Your task to perform on an android device: Go to internet settings Image 0: 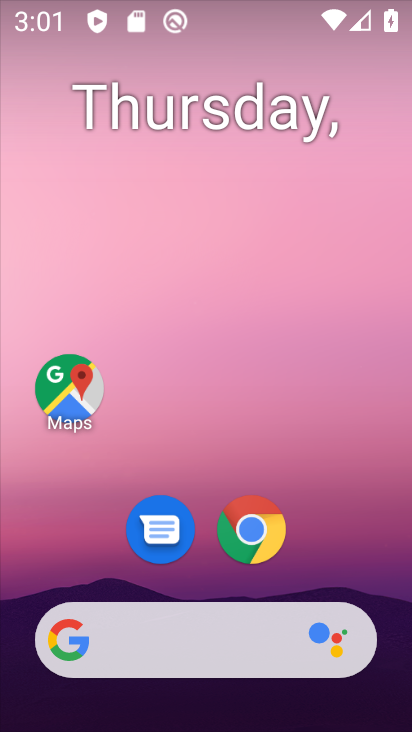
Step 0: drag from (320, 543) to (289, 58)
Your task to perform on an android device: Go to internet settings Image 1: 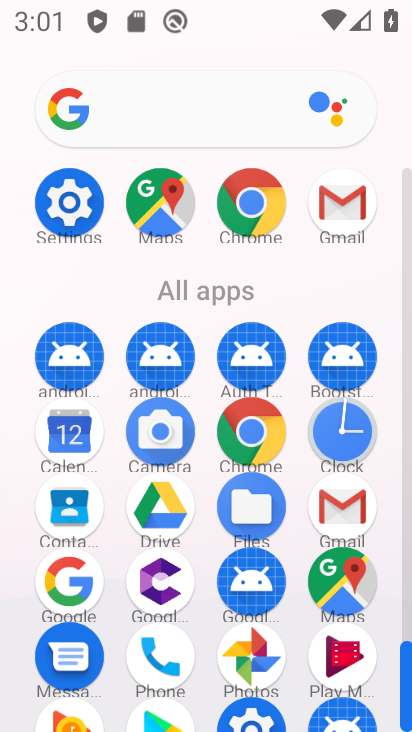
Step 1: click (67, 202)
Your task to perform on an android device: Go to internet settings Image 2: 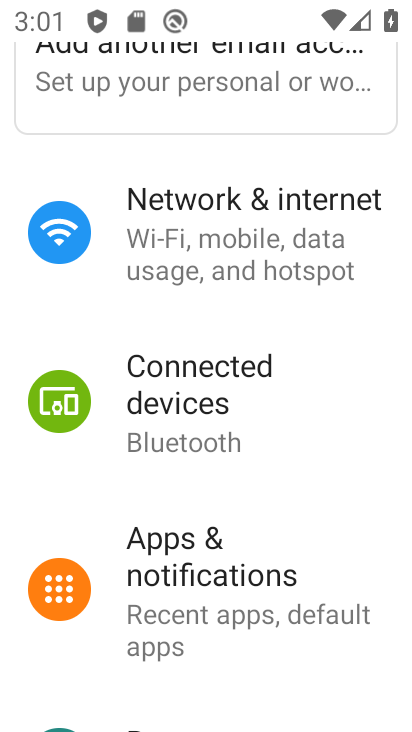
Step 2: click (186, 199)
Your task to perform on an android device: Go to internet settings Image 3: 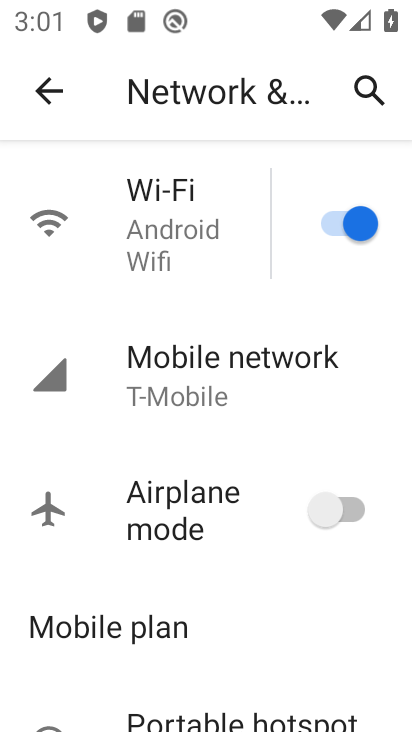
Step 3: task complete